Your task to perform on an android device: change the clock display to analog Image 0: 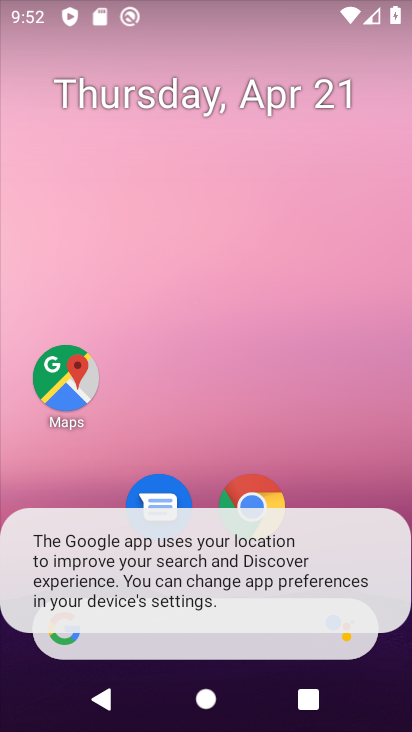
Step 0: drag from (199, 550) to (206, 342)
Your task to perform on an android device: change the clock display to analog Image 1: 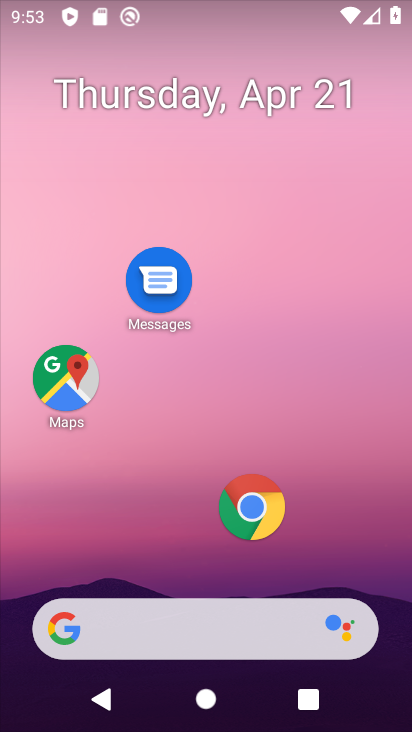
Step 1: drag from (175, 524) to (124, 72)
Your task to perform on an android device: change the clock display to analog Image 2: 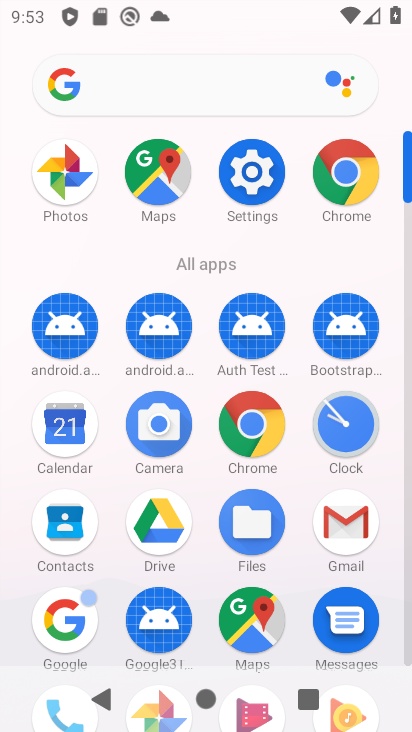
Step 2: click (343, 436)
Your task to perform on an android device: change the clock display to analog Image 3: 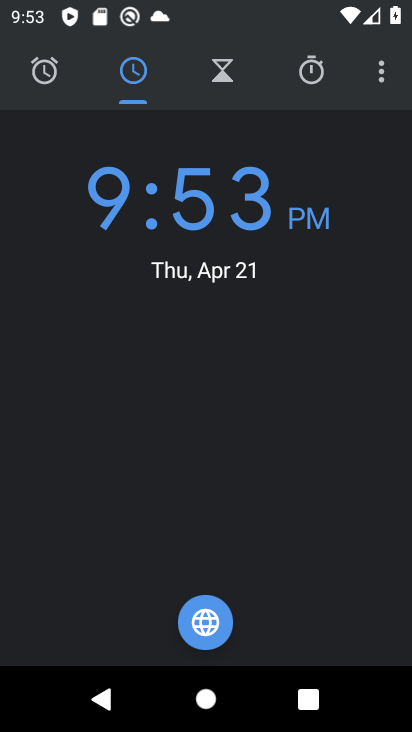
Step 3: click (377, 64)
Your task to perform on an android device: change the clock display to analog Image 4: 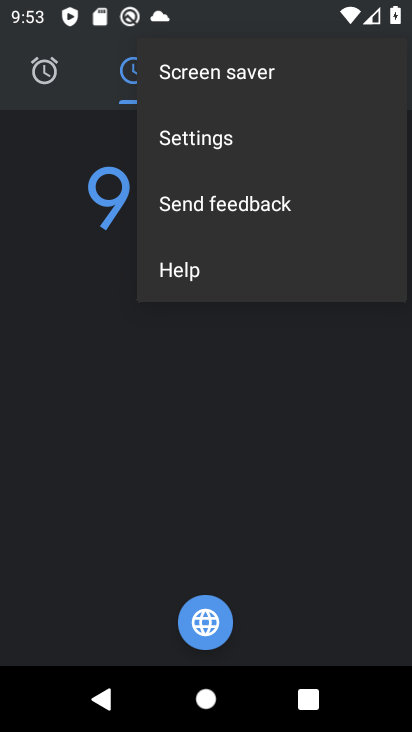
Step 4: click (238, 142)
Your task to perform on an android device: change the clock display to analog Image 5: 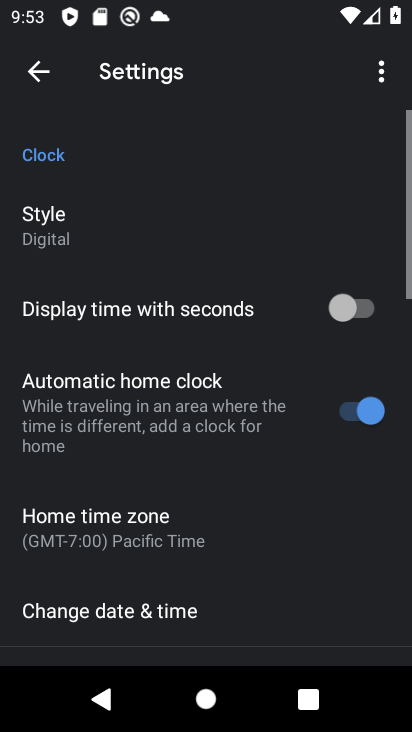
Step 5: click (110, 223)
Your task to perform on an android device: change the clock display to analog Image 6: 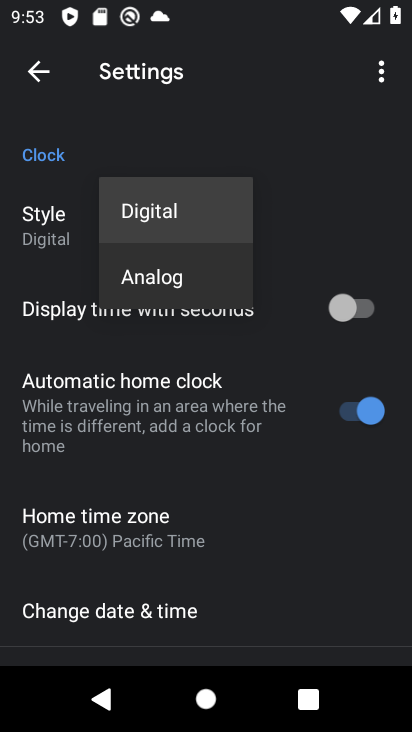
Step 6: click (165, 277)
Your task to perform on an android device: change the clock display to analog Image 7: 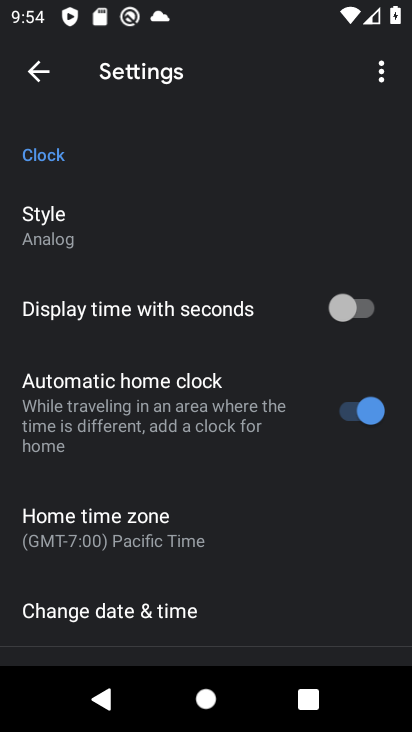
Step 7: task complete